Your task to perform on an android device: set an alarm Image 0: 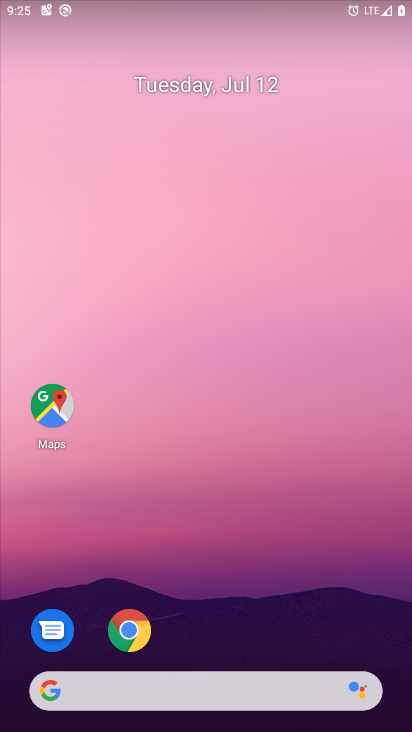
Step 0: drag from (278, 350) to (263, 131)
Your task to perform on an android device: set an alarm Image 1: 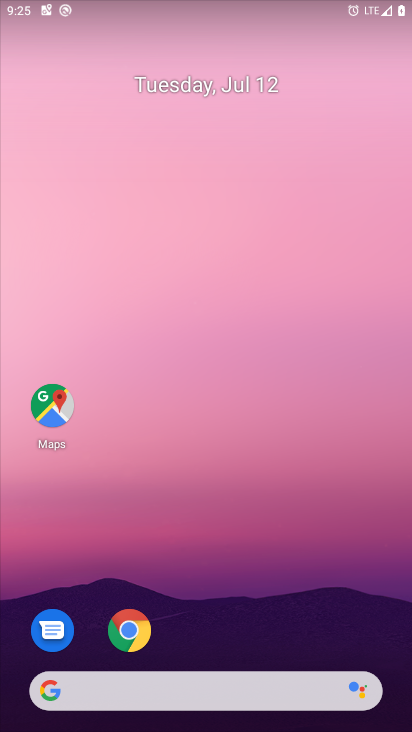
Step 1: drag from (200, 537) to (232, 118)
Your task to perform on an android device: set an alarm Image 2: 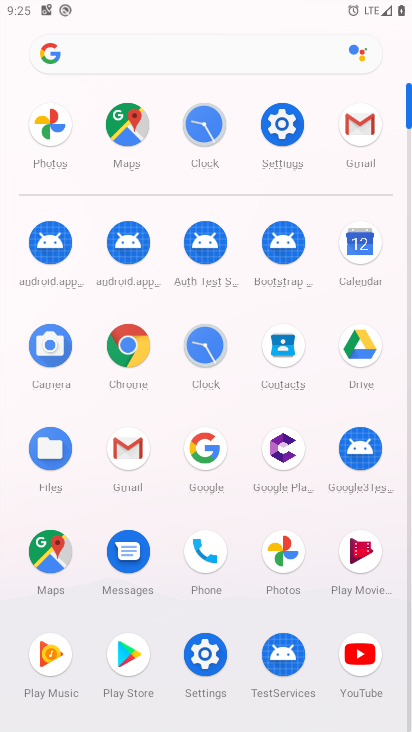
Step 2: click (208, 128)
Your task to perform on an android device: set an alarm Image 3: 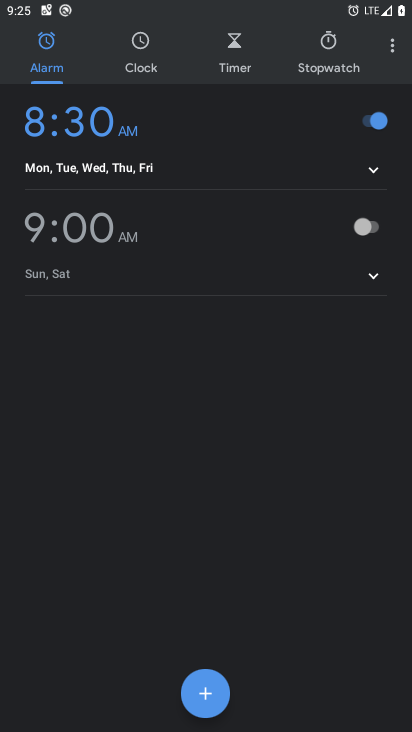
Step 3: click (210, 677)
Your task to perform on an android device: set an alarm Image 4: 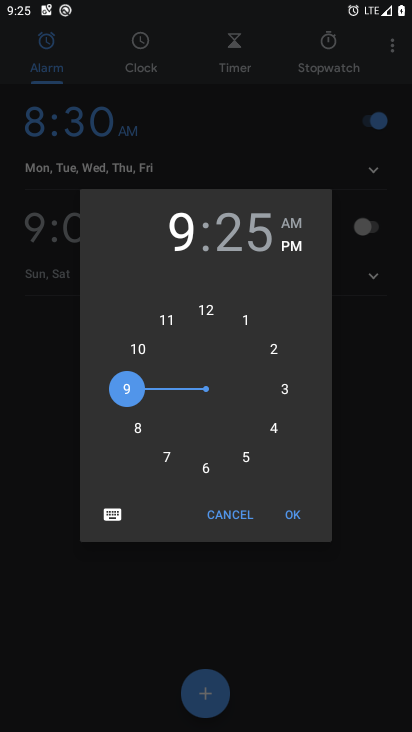
Step 4: drag from (133, 400) to (162, 310)
Your task to perform on an android device: set an alarm Image 5: 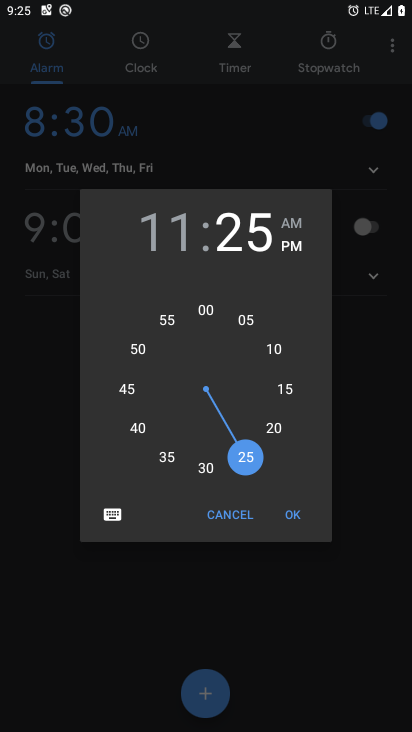
Step 5: click (290, 521)
Your task to perform on an android device: set an alarm Image 6: 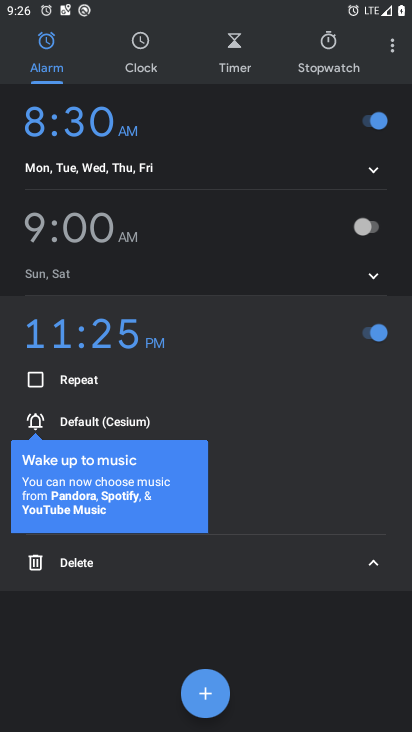
Step 6: click (273, 615)
Your task to perform on an android device: set an alarm Image 7: 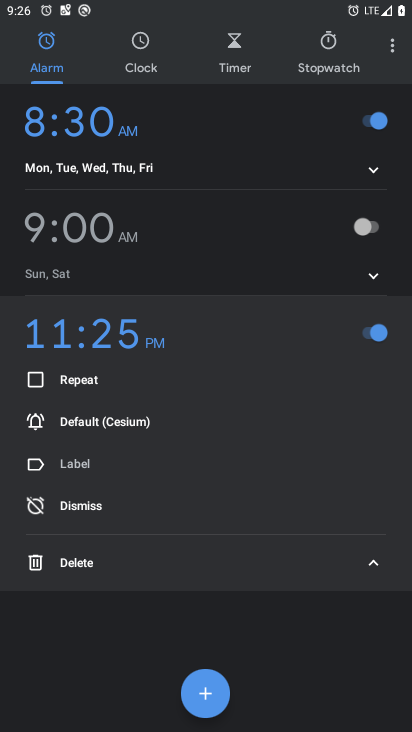
Step 7: click (372, 558)
Your task to perform on an android device: set an alarm Image 8: 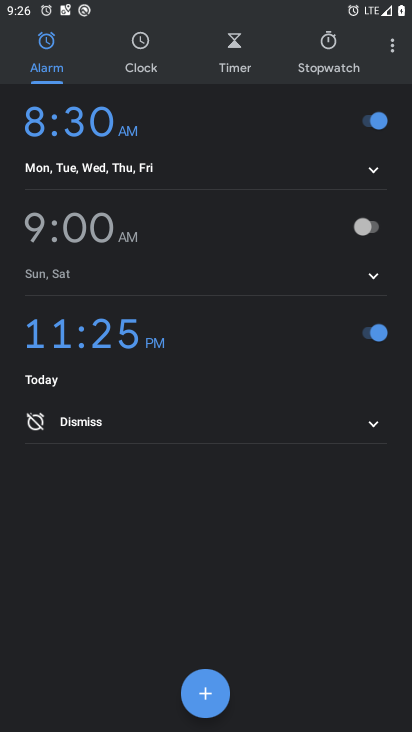
Step 8: task complete